Your task to perform on an android device: turn off improve location accuracy Image 0: 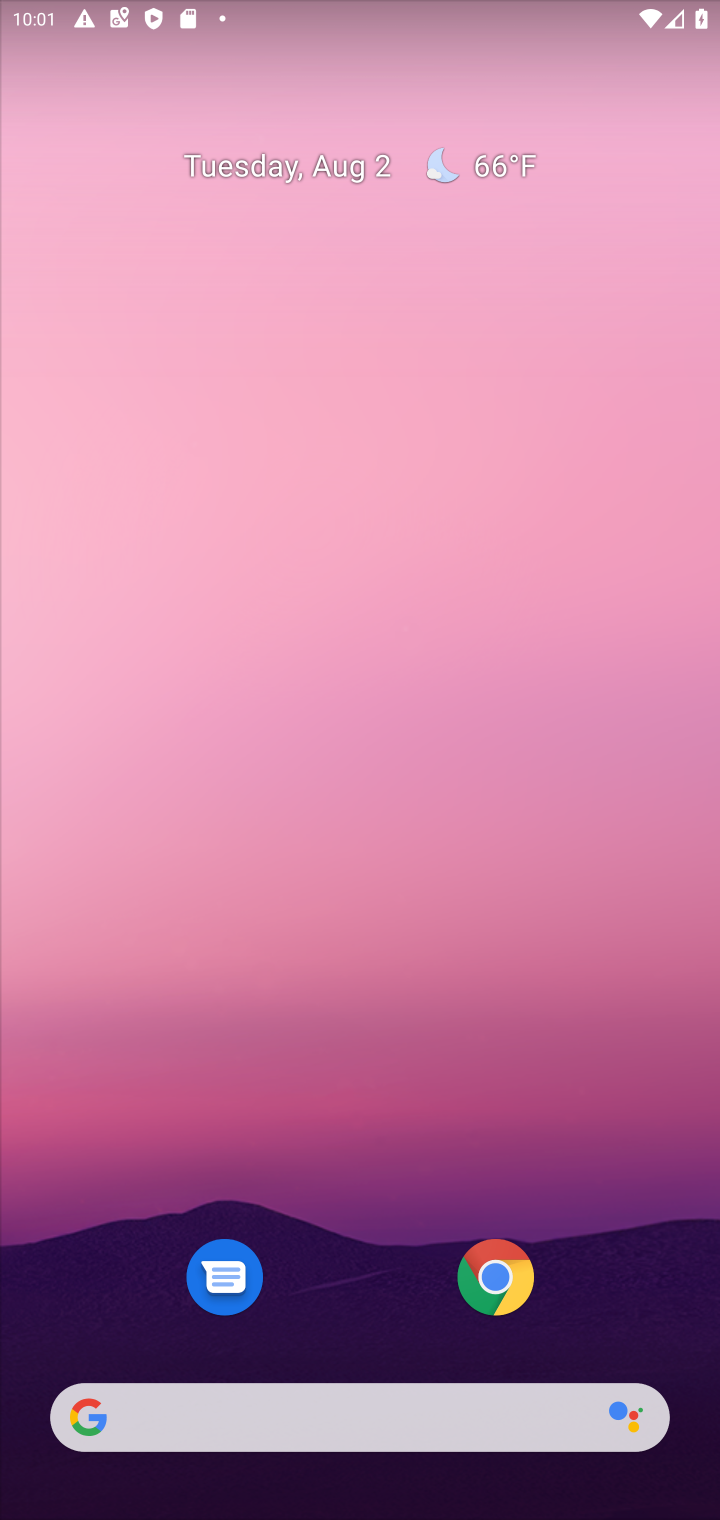
Step 0: drag from (401, 1050) to (469, 149)
Your task to perform on an android device: turn off improve location accuracy Image 1: 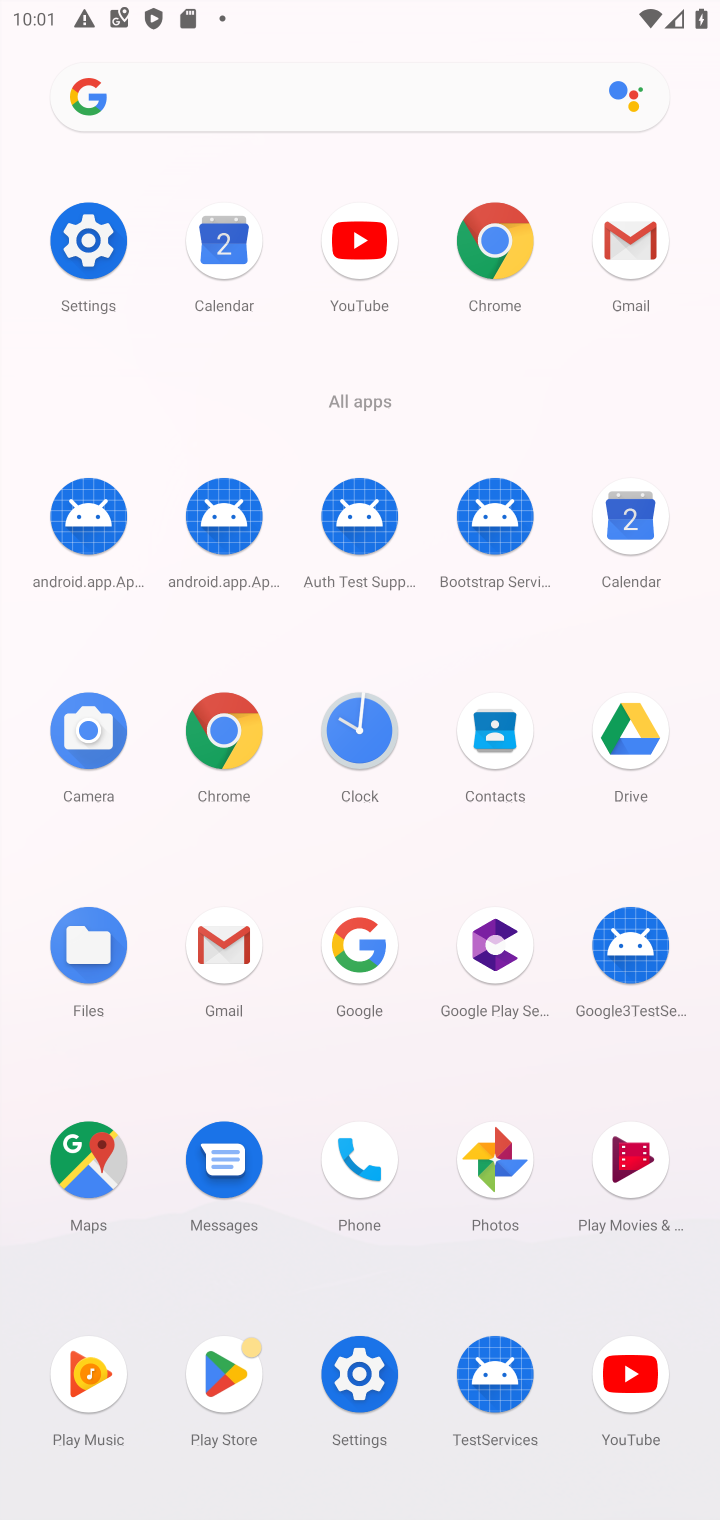
Step 1: click (368, 1378)
Your task to perform on an android device: turn off improve location accuracy Image 2: 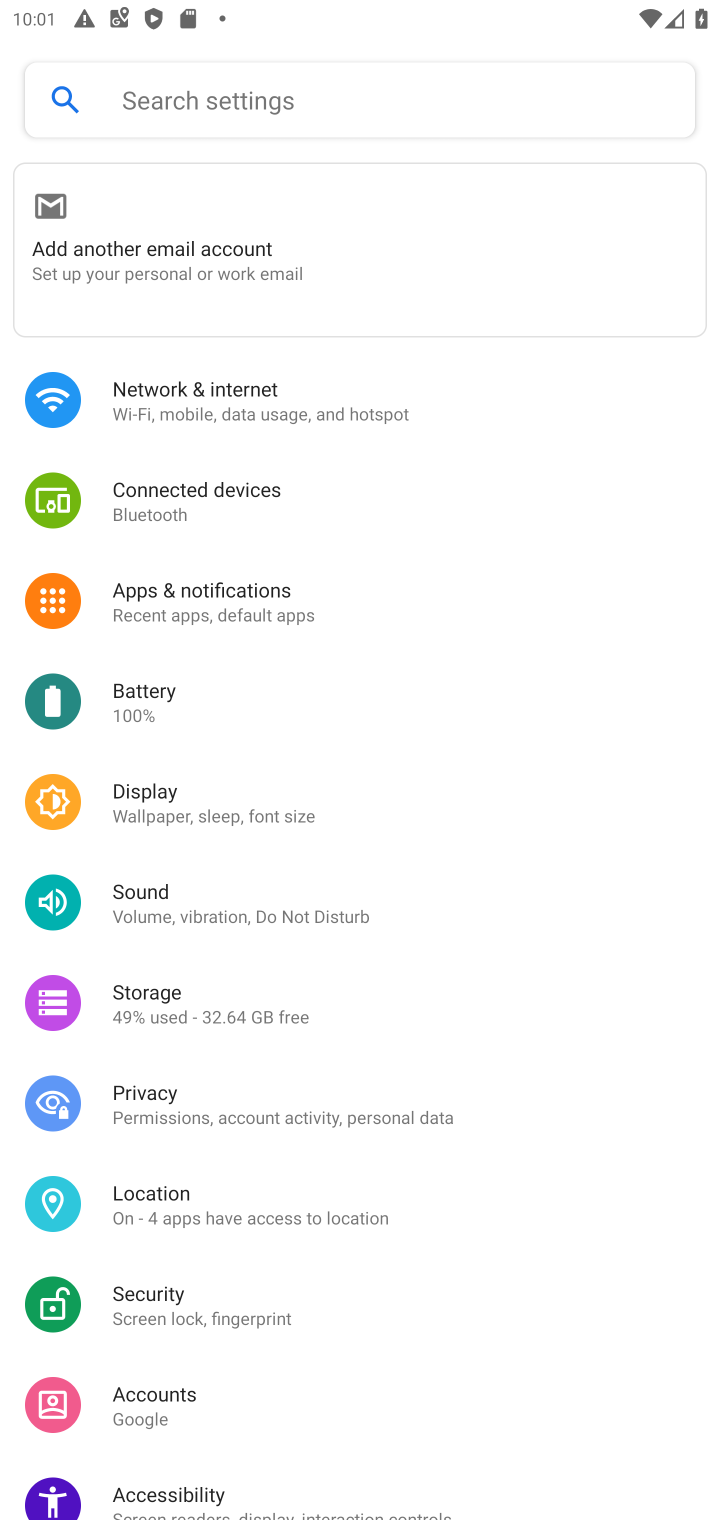
Step 2: click (316, 1227)
Your task to perform on an android device: turn off improve location accuracy Image 3: 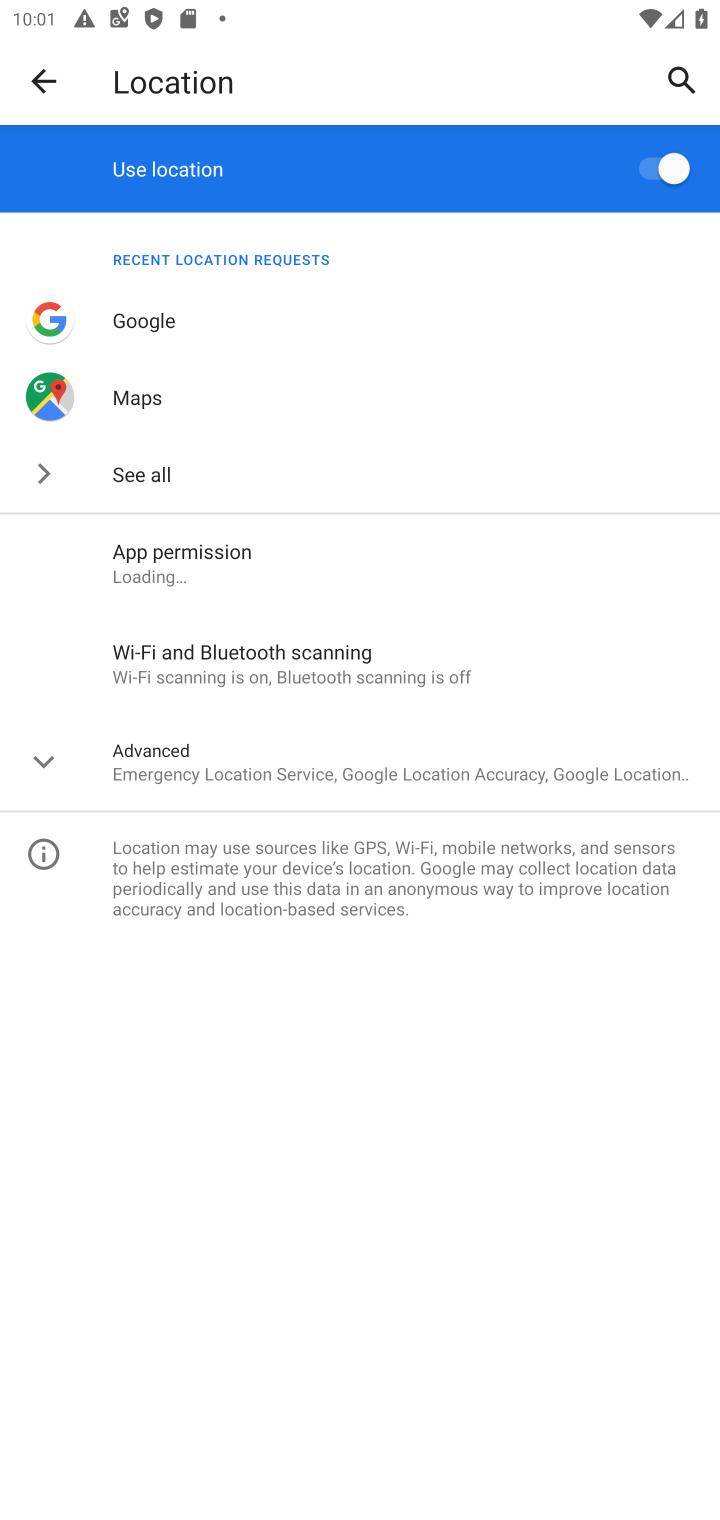
Step 3: task complete